Your task to perform on an android device: Go to settings Image 0: 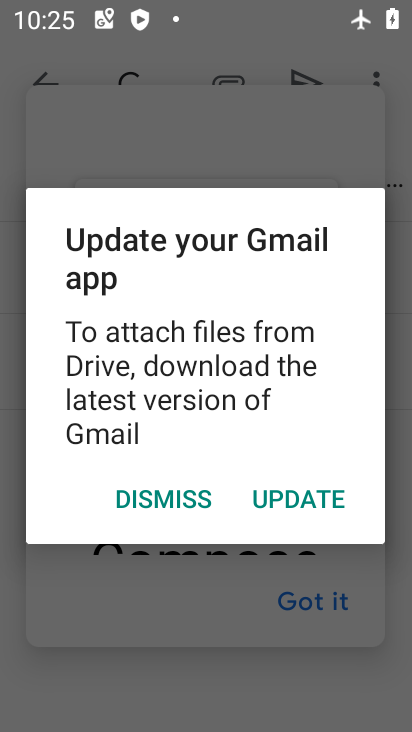
Step 0: press home button
Your task to perform on an android device: Go to settings Image 1: 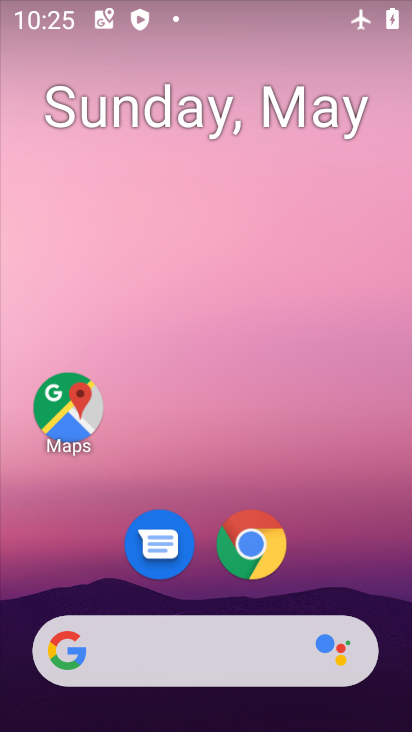
Step 1: drag from (241, 561) to (217, 238)
Your task to perform on an android device: Go to settings Image 2: 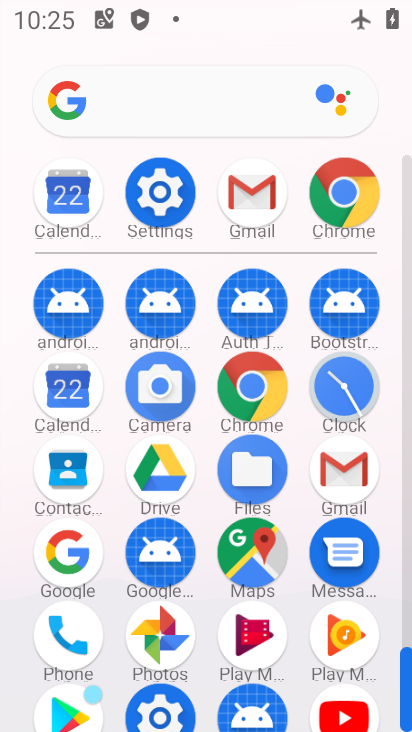
Step 2: click (159, 174)
Your task to perform on an android device: Go to settings Image 3: 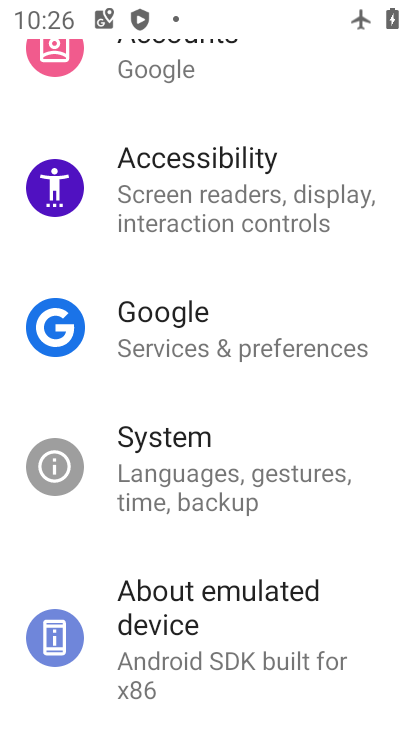
Step 3: task complete